Your task to perform on an android device: turn on airplane mode Image 0: 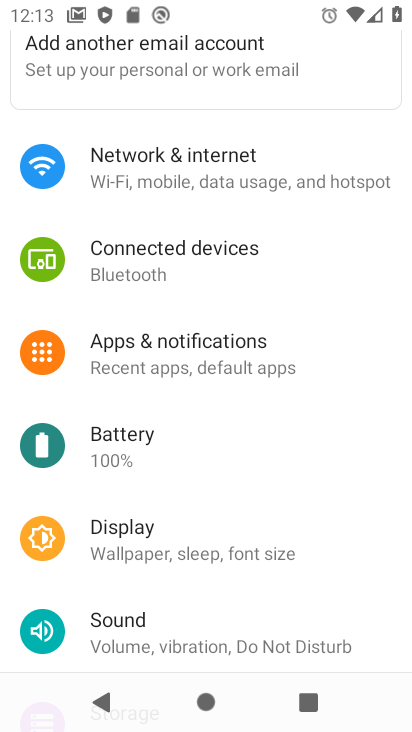
Step 0: click (173, 180)
Your task to perform on an android device: turn on airplane mode Image 1: 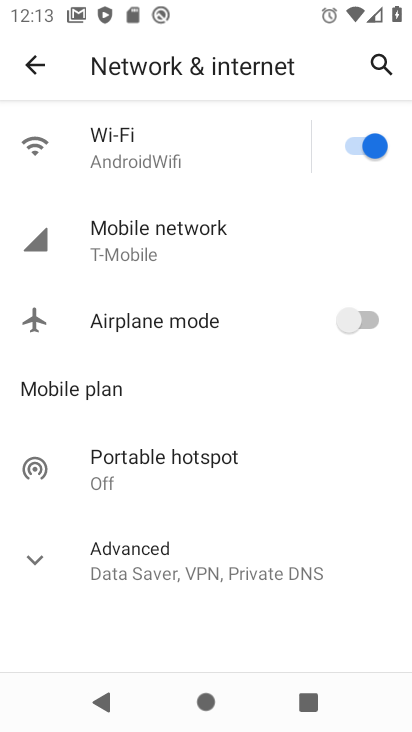
Step 1: click (350, 324)
Your task to perform on an android device: turn on airplane mode Image 2: 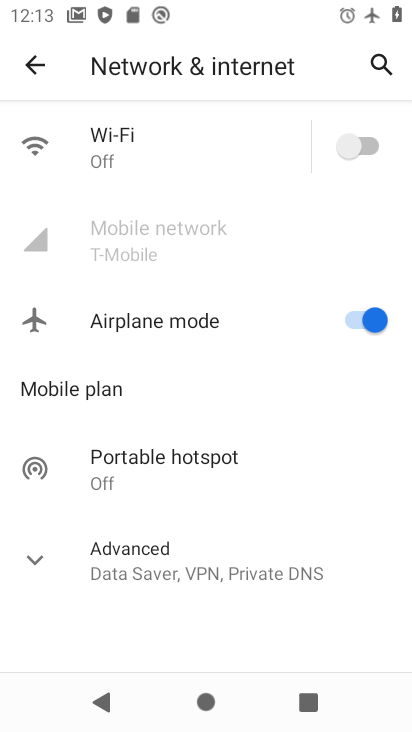
Step 2: task complete